Your task to perform on an android device: Go to location settings Image 0: 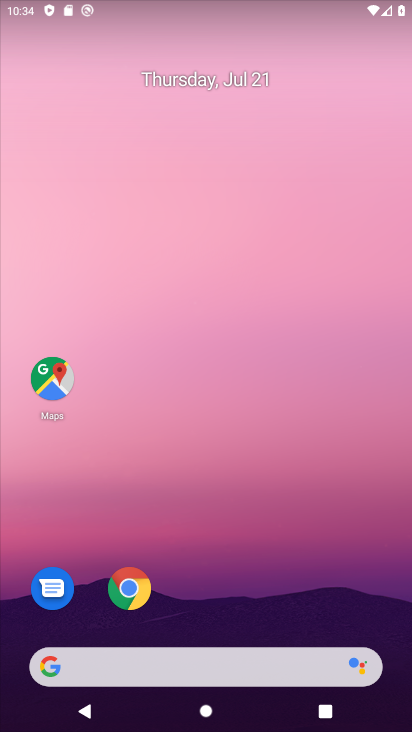
Step 0: click (255, 8)
Your task to perform on an android device: Go to location settings Image 1: 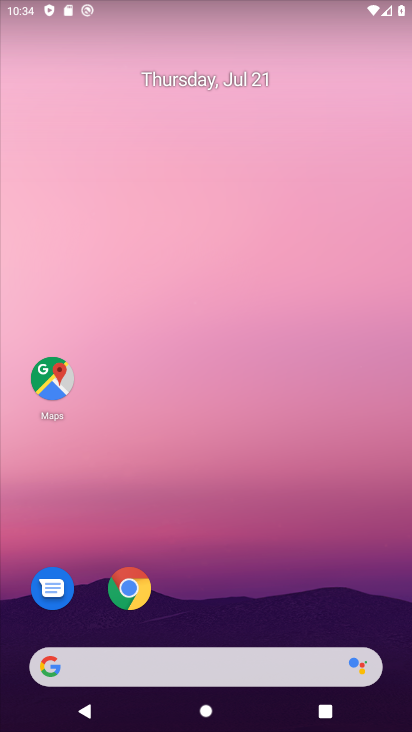
Step 1: drag from (226, 629) to (237, 231)
Your task to perform on an android device: Go to location settings Image 2: 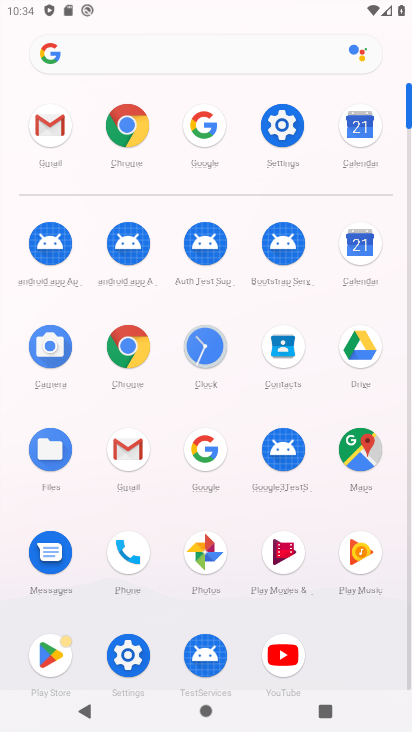
Step 2: click (137, 652)
Your task to perform on an android device: Go to location settings Image 3: 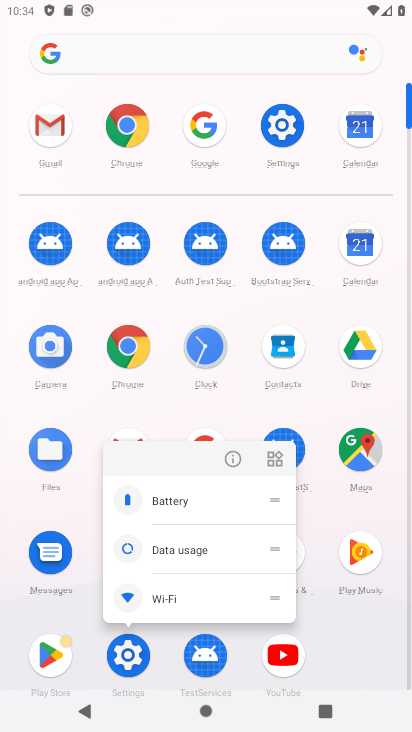
Step 3: click (239, 456)
Your task to perform on an android device: Go to location settings Image 4: 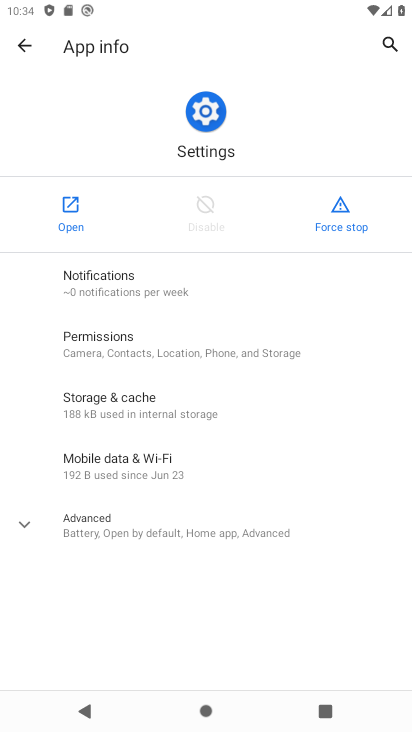
Step 4: click (75, 210)
Your task to perform on an android device: Go to location settings Image 5: 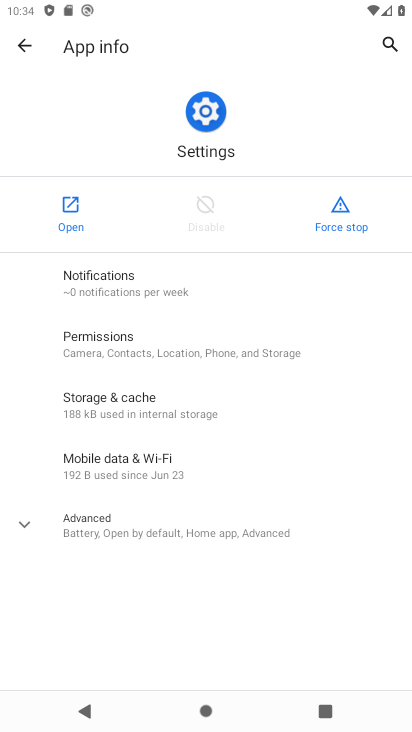
Step 5: click (75, 210)
Your task to perform on an android device: Go to location settings Image 6: 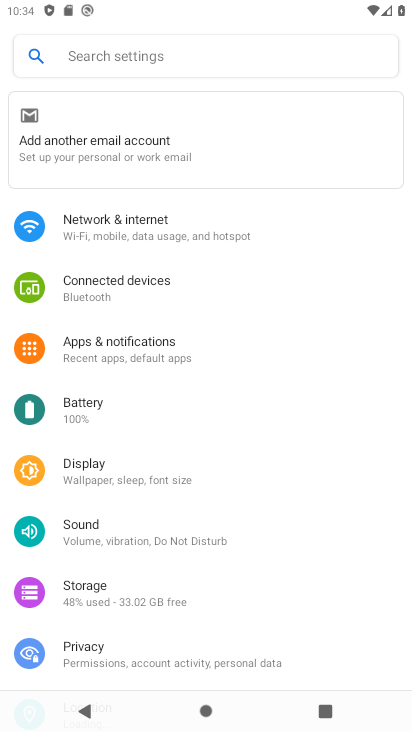
Step 6: drag from (126, 537) to (208, 280)
Your task to perform on an android device: Go to location settings Image 7: 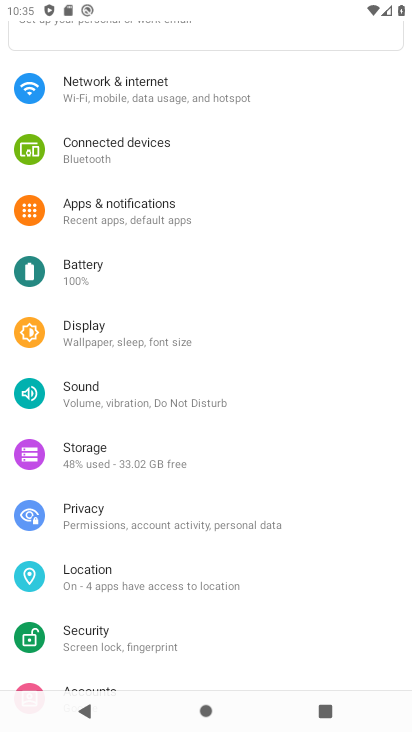
Step 7: click (99, 577)
Your task to perform on an android device: Go to location settings Image 8: 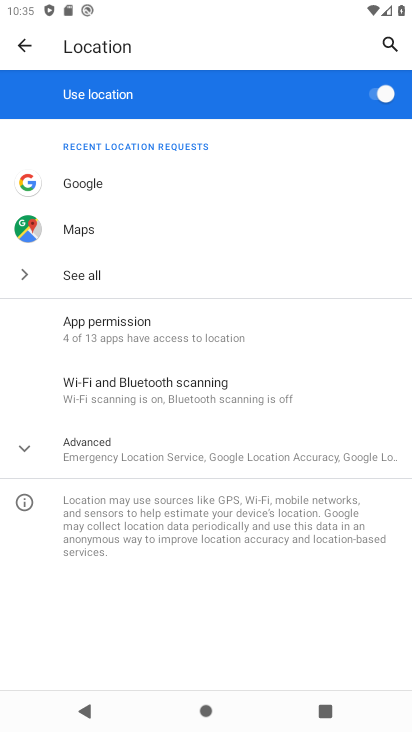
Step 8: click (157, 443)
Your task to perform on an android device: Go to location settings Image 9: 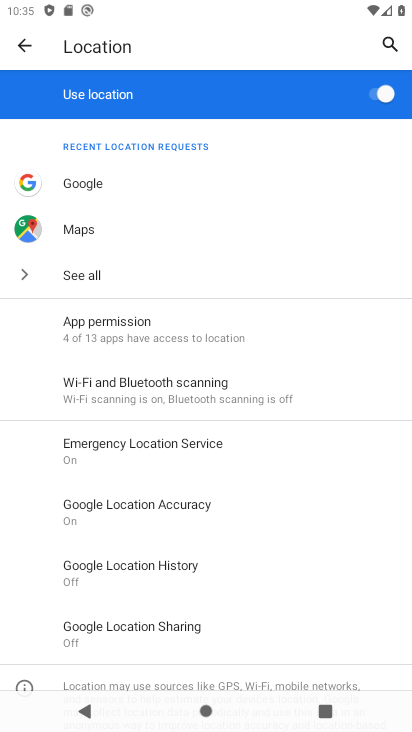
Step 9: task complete